Your task to perform on an android device: turn off location Image 0: 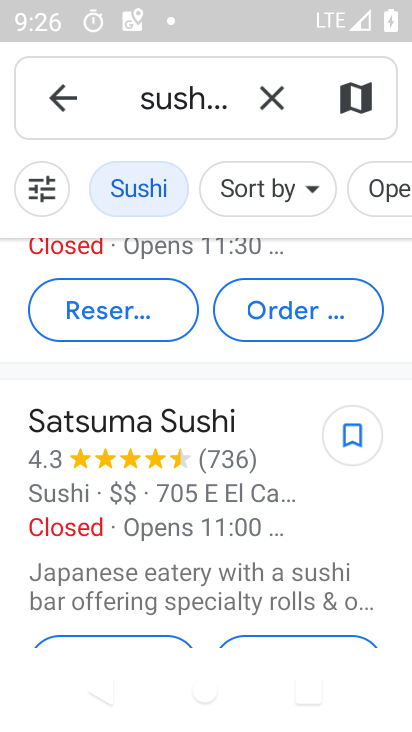
Step 0: press home button
Your task to perform on an android device: turn off location Image 1: 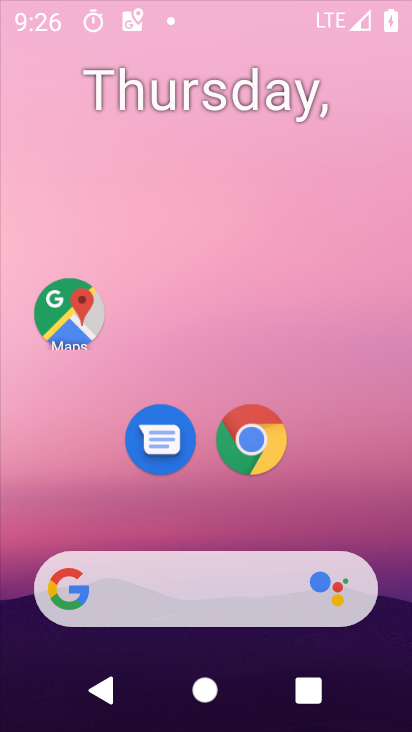
Step 1: drag from (192, 564) to (292, 203)
Your task to perform on an android device: turn off location Image 2: 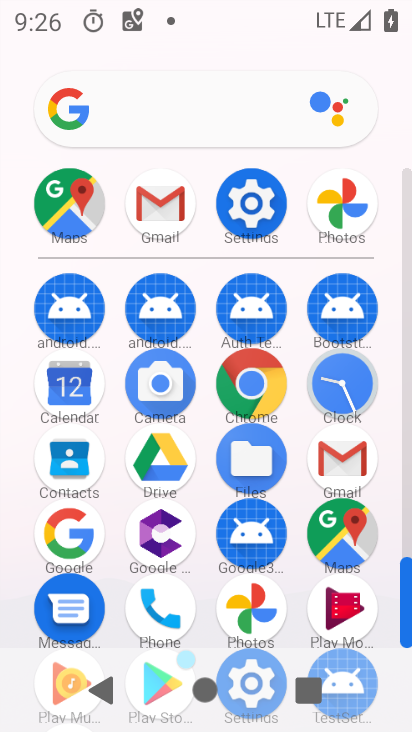
Step 2: click (257, 208)
Your task to perform on an android device: turn off location Image 3: 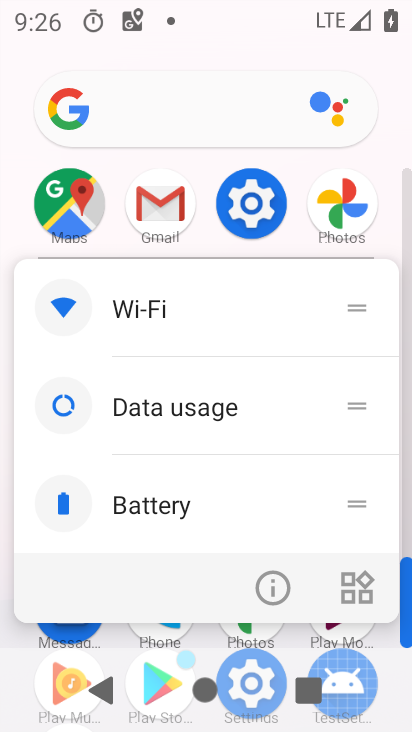
Step 3: click (281, 585)
Your task to perform on an android device: turn off location Image 4: 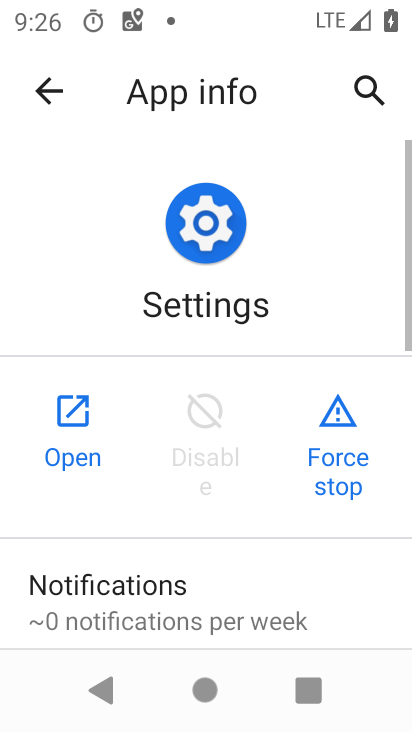
Step 4: click (85, 425)
Your task to perform on an android device: turn off location Image 5: 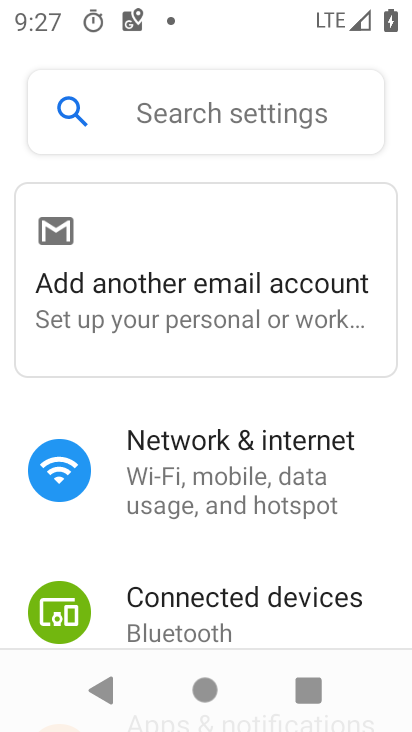
Step 5: drag from (147, 601) to (166, 170)
Your task to perform on an android device: turn off location Image 6: 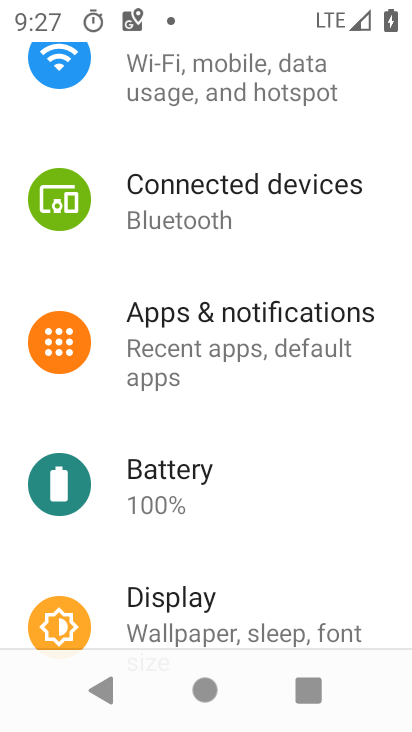
Step 6: drag from (223, 589) to (265, 78)
Your task to perform on an android device: turn off location Image 7: 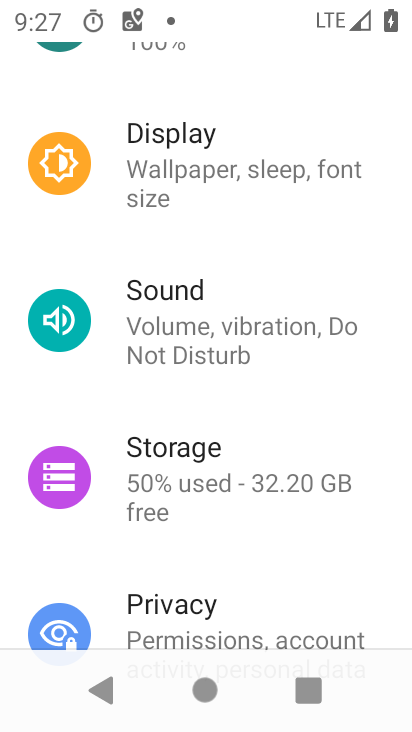
Step 7: drag from (196, 566) to (213, 207)
Your task to perform on an android device: turn off location Image 8: 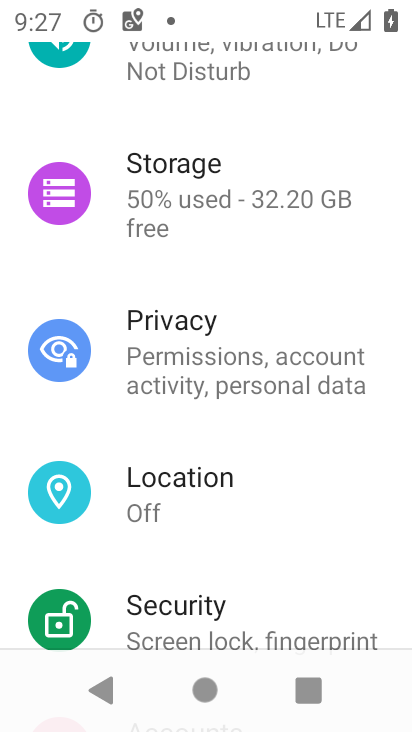
Step 8: click (206, 480)
Your task to perform on an android device: turn off location Image 9: 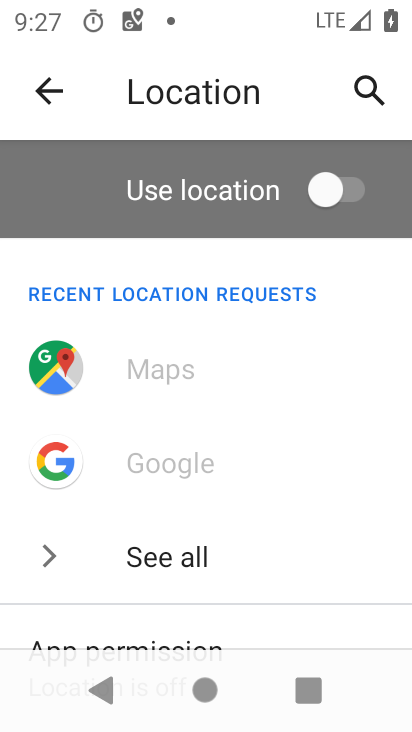
Step 9: task complete